Your task to perform on an android device: Turn on the flashlight Image 0: 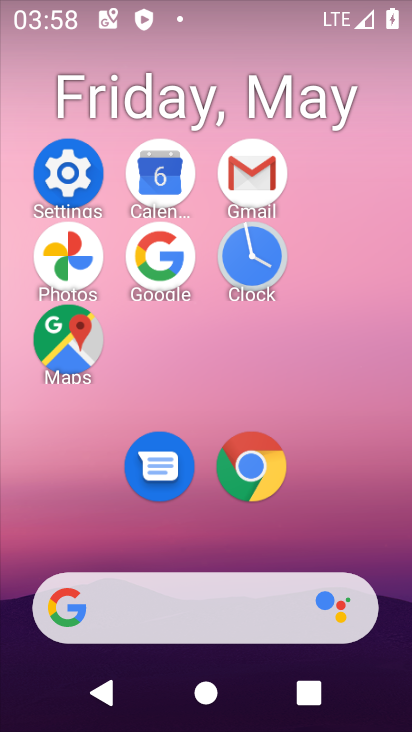
Step 0: drag from (387, 0) to (225, 396)
Your task to perform on an android device: Turn on the flashlight Image 1: 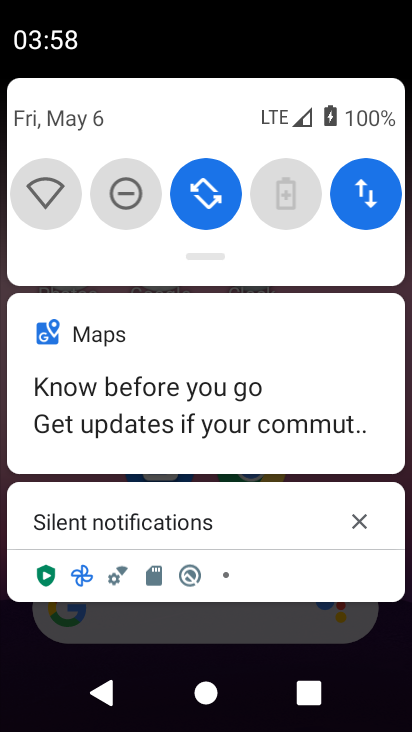
Step 1: task complete